Your task to perform on an android device: change keyboard looks Image 0: 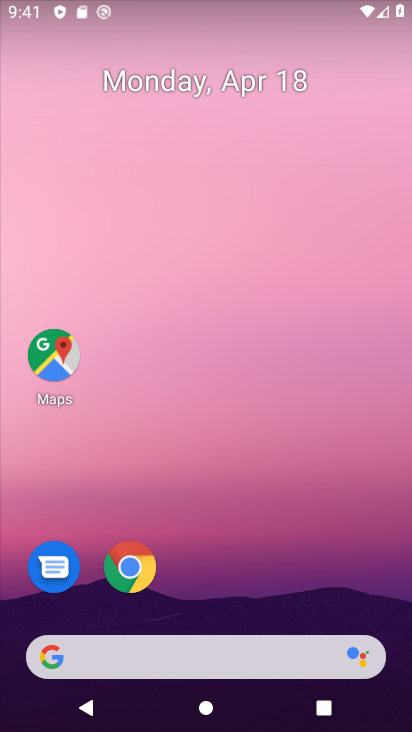
Step 0: drag from (335, 582) to (333, 166)
Your task to perform on an android device: change keyboard looks Image 1: 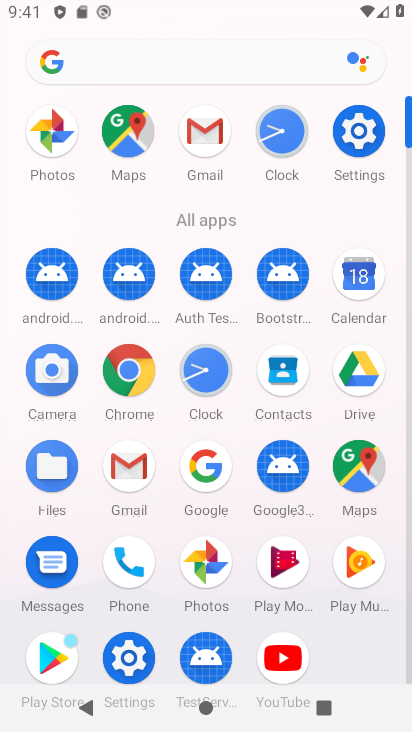
Step 1: click (125, 657)
Your task to perform on an android device: change keyboard looks Image 2: 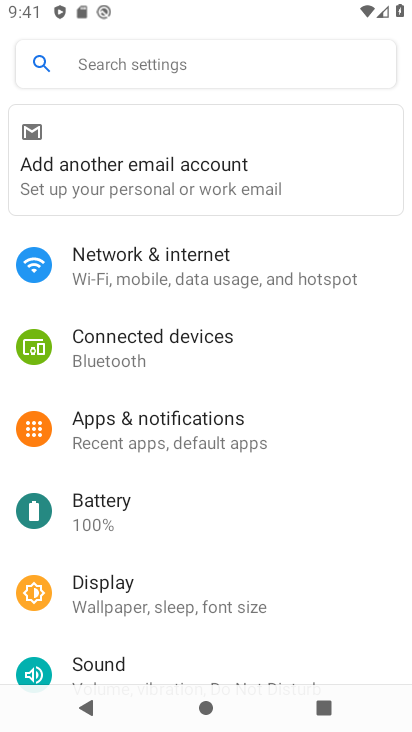
Step 2: drag from (324, 665) to (350, 261)
Your task to perform on an android device: change keyboard looks Image 3: 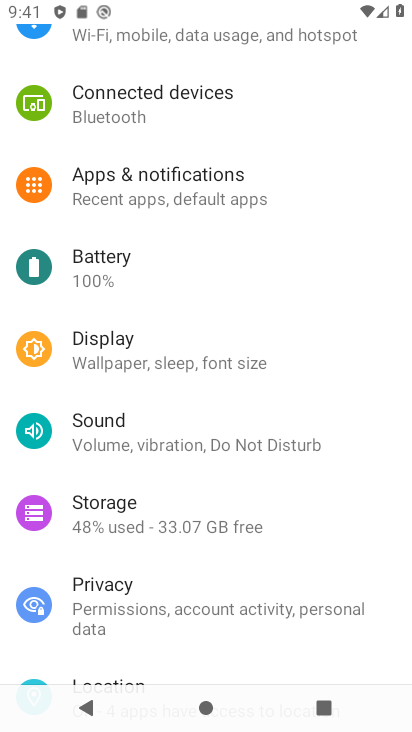
Step 3: drag from (259, 621) to (336, 263)
Your task to perform on an android device: change keyboard looks Image 4: 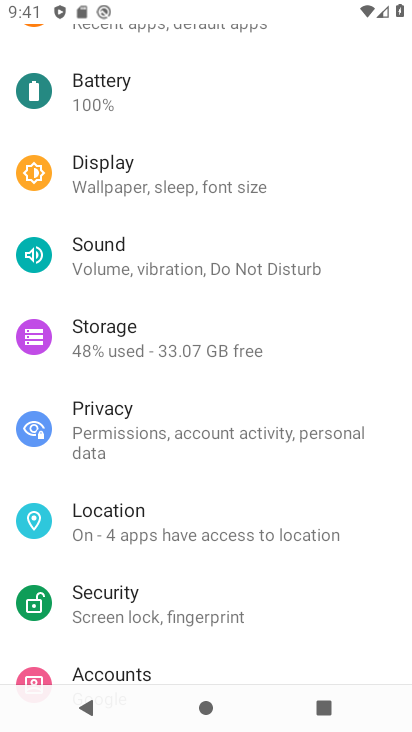
Step 4: drag from (282, 626) to (357, 337)
Your task to perform on an android device: change keyboard looks Image 5: 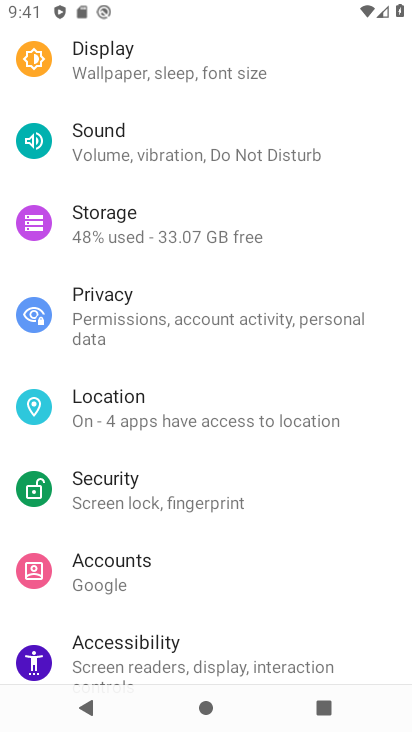
Step 5: drag from (255, 604) to (337, 186)
Your task to perform on an android device: change keyboard looks Image 6: 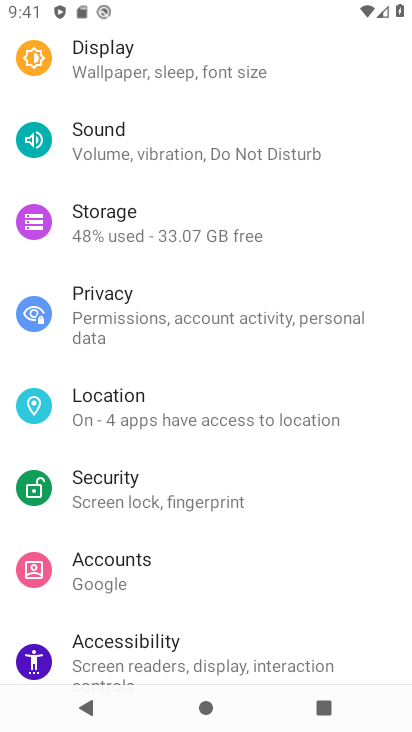
Step 6: drag from (294, 562) to (341, 176)
Your task to perform on an android device: change keyboard looks Image 7: 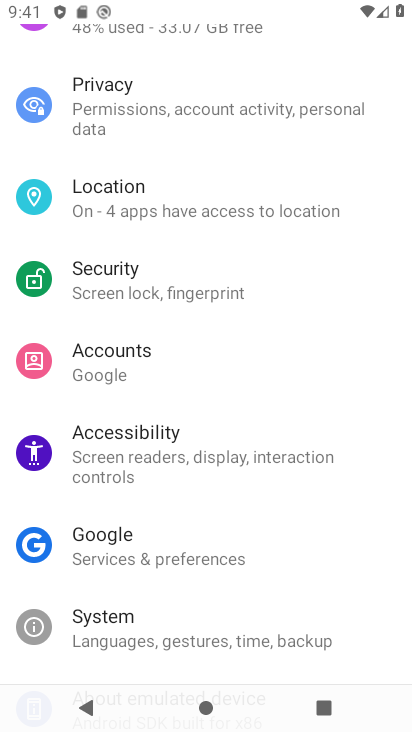
Step 7: click (221, 633)
Your task to perform on an android device: change keyboard looks Image 8: 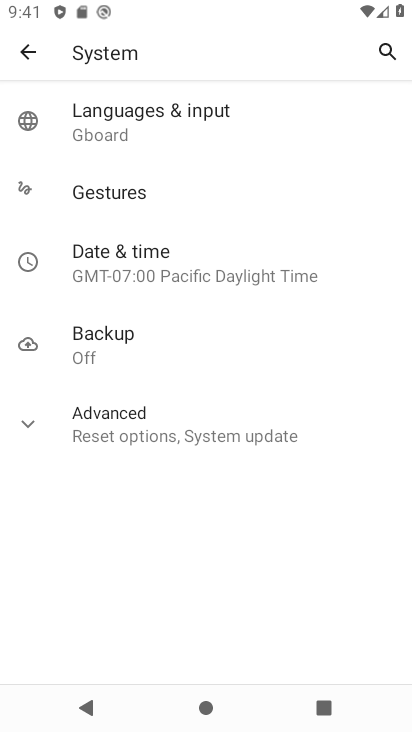
Step 8: click (198, 98)
Your task to perform on an android device: change keyboard looks Image 9: 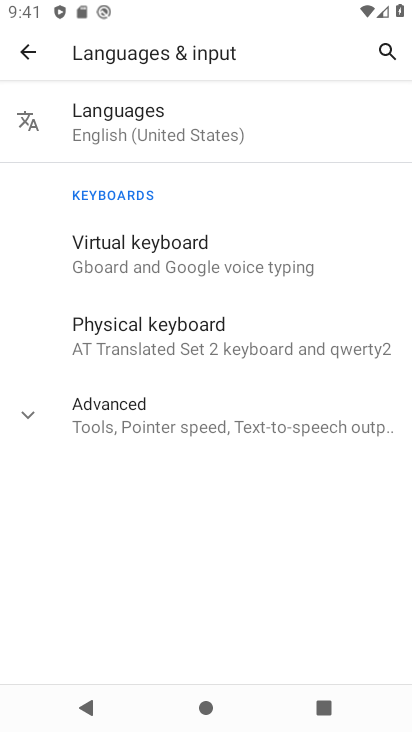
Step 9: click (163, 264)
Your task to perform on an android device: change keyboard looks Image 10: 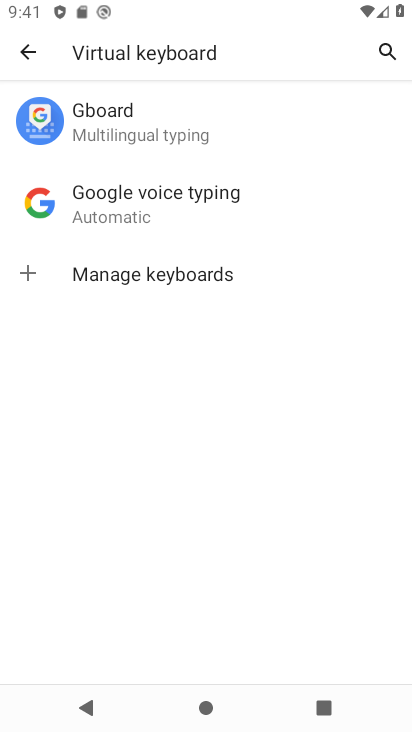
Step 10: click (165, 109)
Your task to perform on an android device: change keyboard looks Image 11: 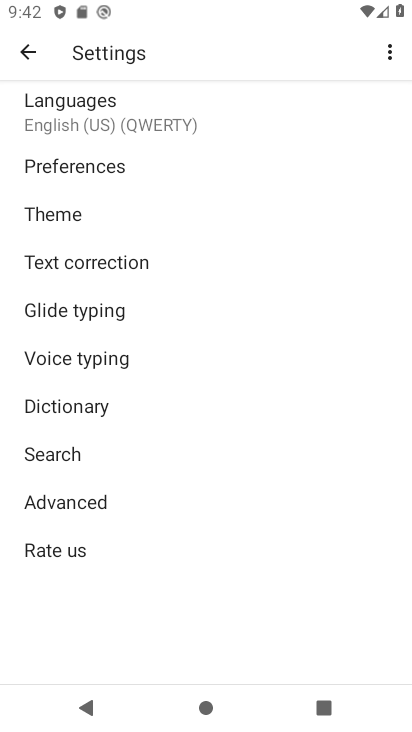
Step 11: click (45, 220)
Your task to perform on an android device: change keyboard looks Image 12: 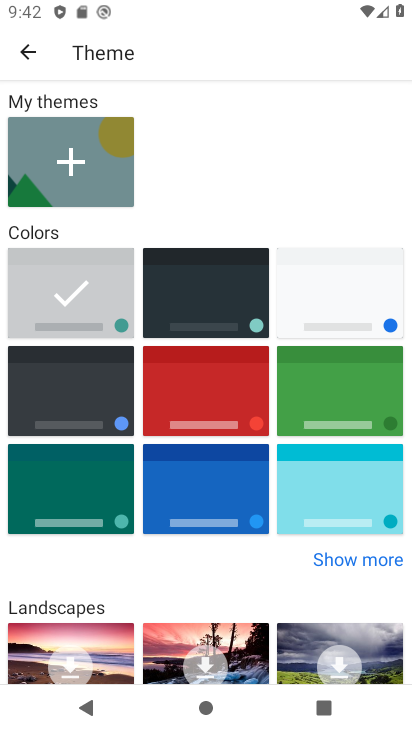
Step 12: click (207, 419)
Your task to perform on an android device: change keyboard looks Image 13: 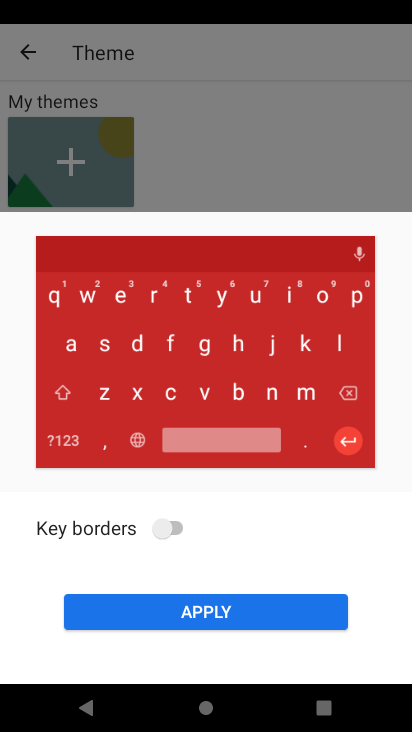
Step 13: click (244, 611)
Your task to perform on an android device: change keyboard looks Image 14: 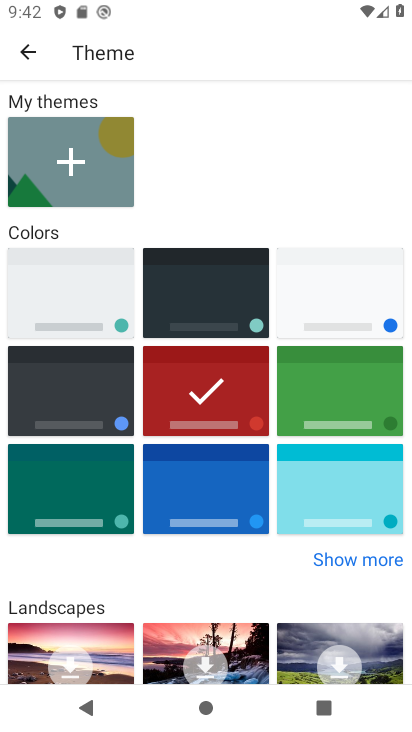
Step 14: task complete